Your task to perform on an android device: open sync settings in chrome Image 0: 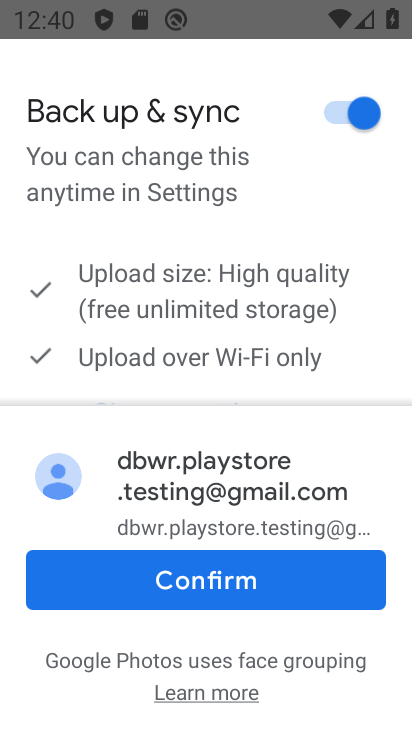
Step 0: press home button
Your task to perform on an android device: open sync settings in chrome Image 1: 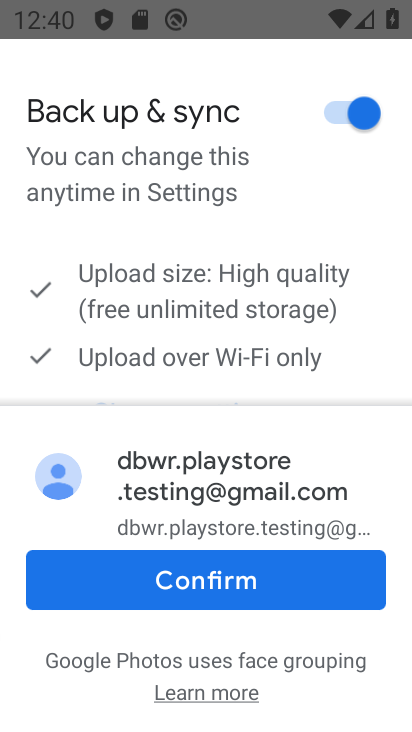
Step 1: press home button
Your task to perform on an android device: open sync settings in chrome Image 2: 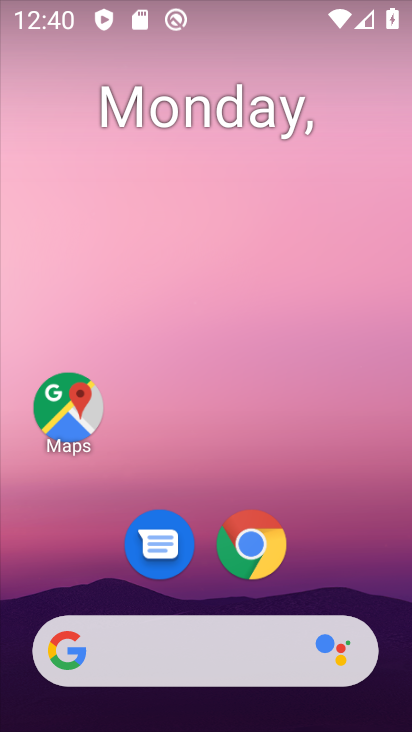
Step 2: click (249, 547)
Your task to perform on an android device: open sync settings in chrome Image 3: 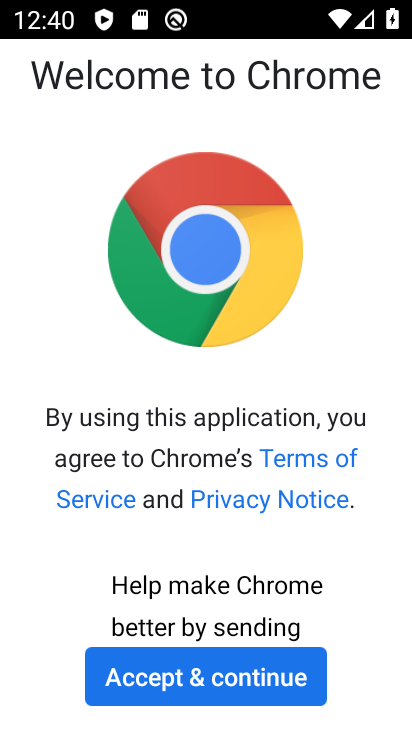
Step 3: click (205, 681)
Your task to perform on an android device: open sync settings in chrome Image 4: 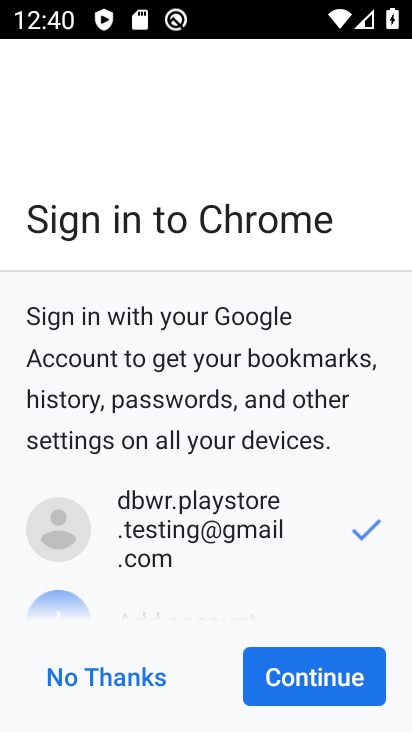
Step 4: click (293, 682)
Your task to perform on an android device: open sync settings in chrome Image 5: 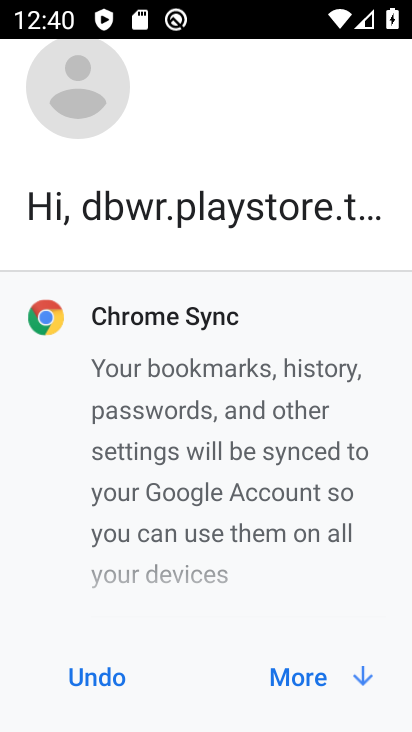
Step 5: click (293, 681)
Your task to perform on an android device: open sync settings in chrome Image 6: 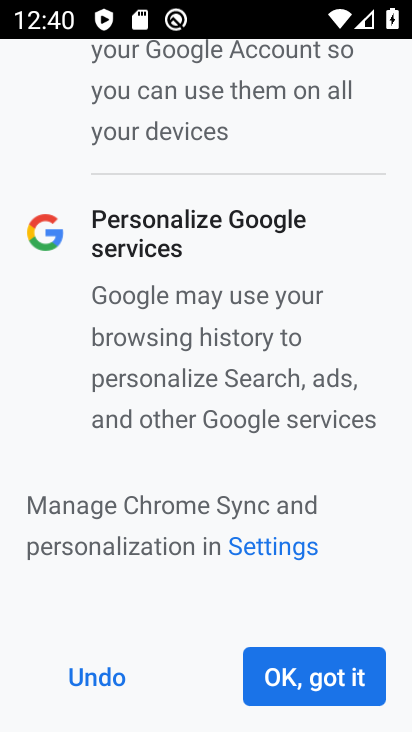
Step 6: click (292, 681)
Your task to perform on an android device: open sync settings in chrome Image 7: 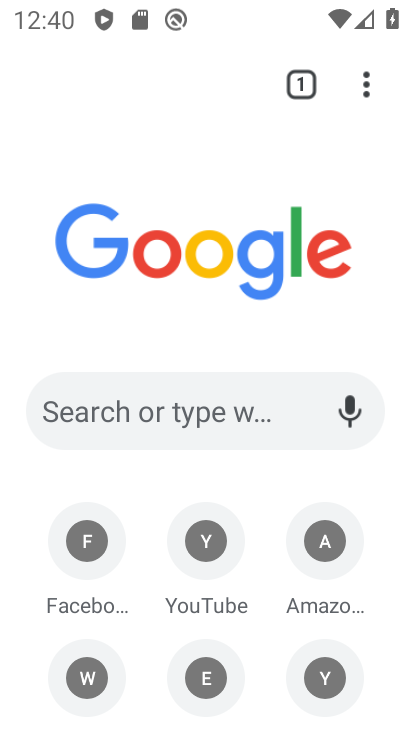
Step 7: click (367, 79)
Your task to perform on an android device: open sync settings in chrome Image 8: 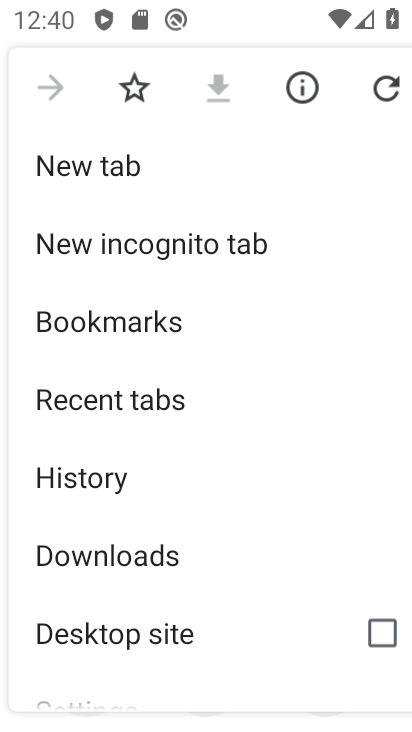
Step 8: drag from (128, 641) to (112, 225)
Your task to perform on an android device: open sync settings in chrome Image 9: 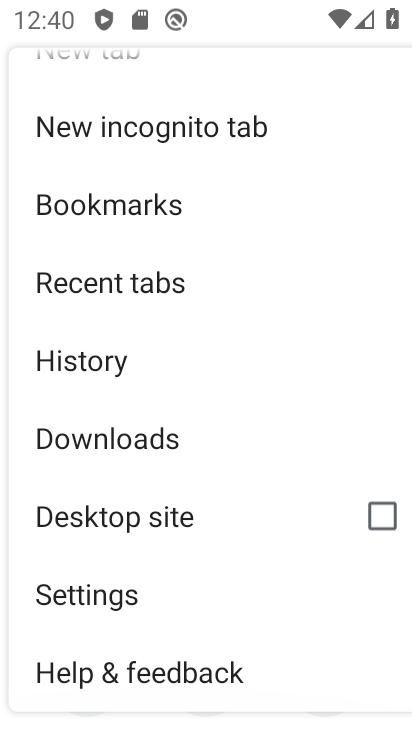
Step 9: click (122, 606)
Your task to perform on an android device: open sync settings in chrome Image 10: 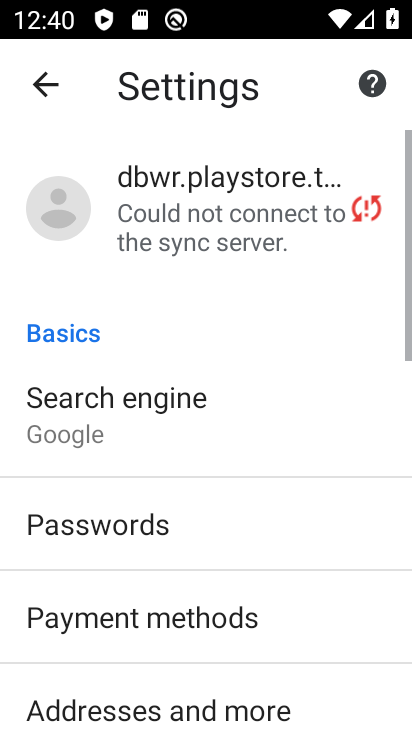
Step 10: click (116, 214)
Your task to perform on an android device: open sync settings in chrome Image 11: 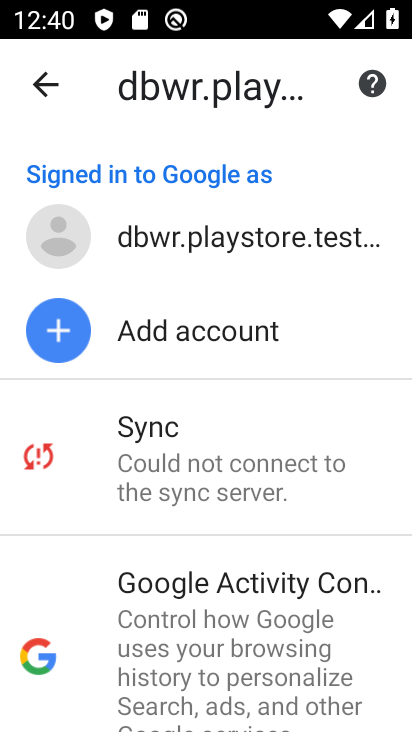
Step 11: click (121, 478)
Your task to perform on an android device: open sync settings in chrome Image 12: 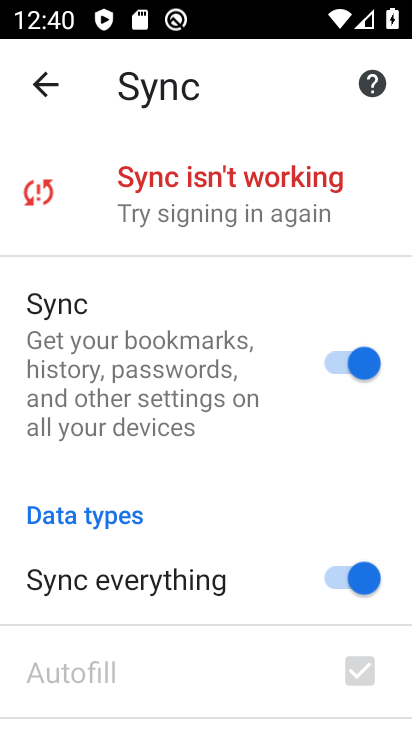
Step 12: task complete